Your task to perform on an android device: Open Google Chrome and open the bookmarks view Image 0: 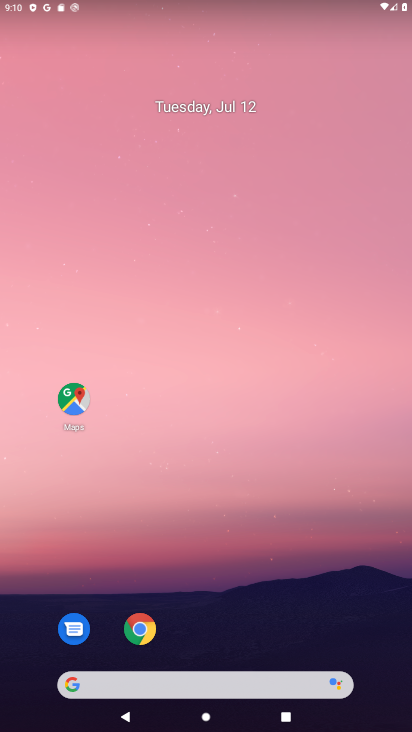
Step 0: drag from (304, 618) to (277, 215)
Your task to perform on an android device: Open Google Chrome and open the bookmarks view Image 1: 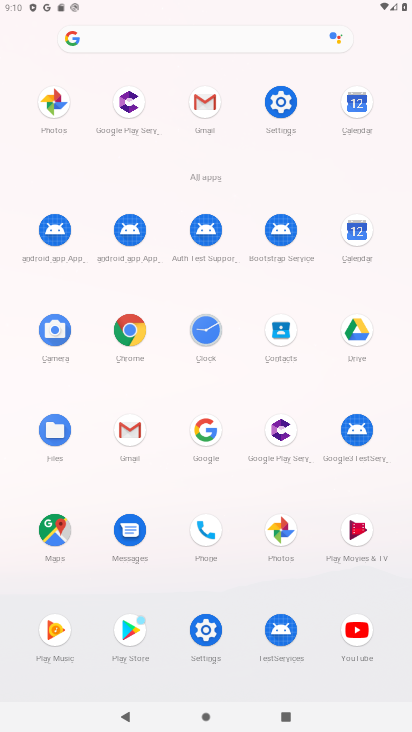
Step 1: click (134, 328)
Your task to perform on an android device: Open Google Chrome and open the bookmarks view Image 2: 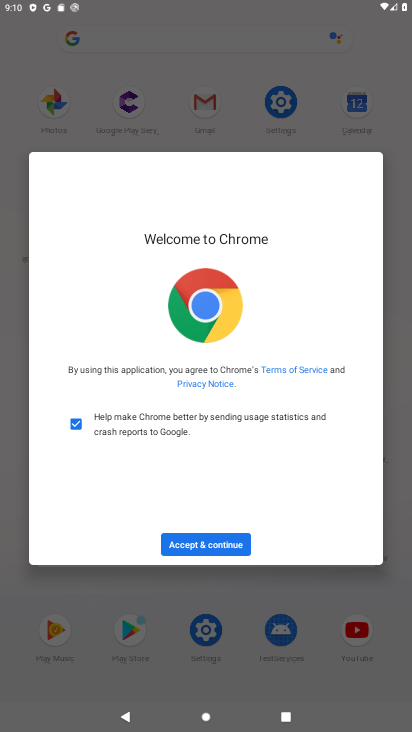
Step 2: click (204, 531)
Your task to perform on an android device: Open Google Chrome and open the bookmarks view Image 3: 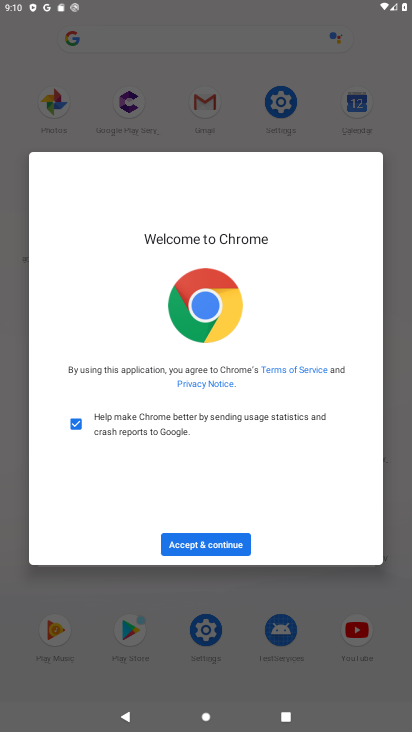
Step 3: click (204, 537)
Your task to perform on an android device: Open Google Chrome and open the bookmarks view Image 4: 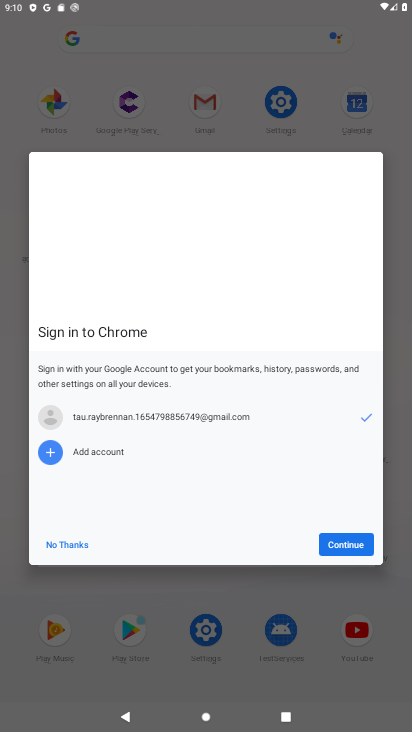
Step 4: click (362, 552)
Your task to perform on an android device: Open Google Chrome and open the bookmarks view Image 5: 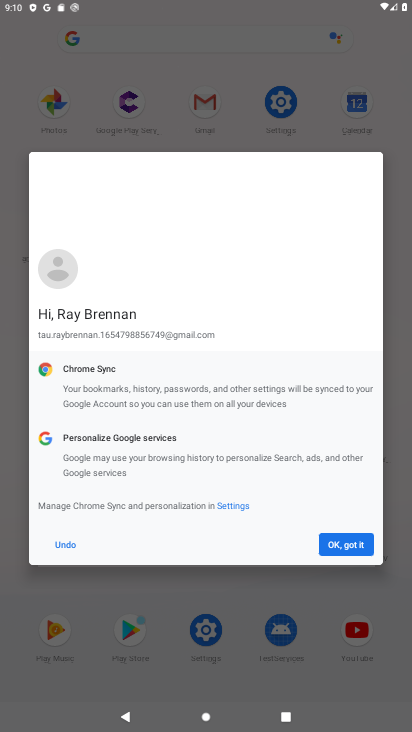
Step 5: click (362, 552)
Your task to perform on an android device: Open Google Chrome and open the bookmarks view Image 6: 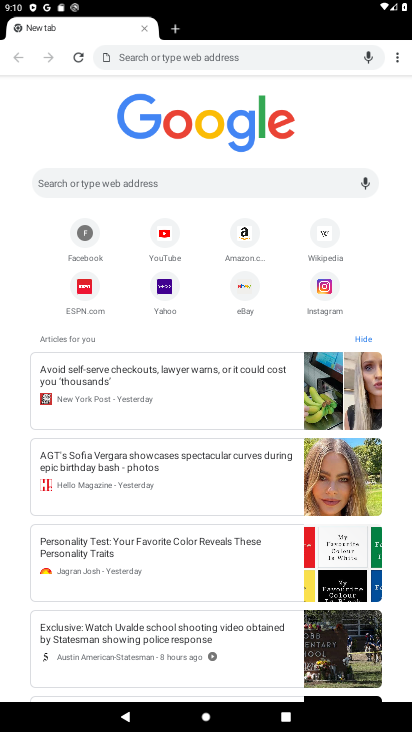
Step 6: click (397, 61)
Your task to perform on an android device: Open Google Chrome and open the bookmarks view Image 7: 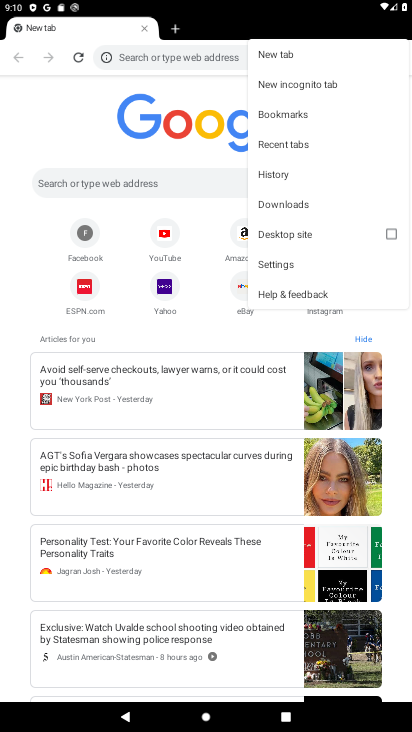
Step 7: click (337, 112)
Your task to perform on an android device: Open Google Chrome and open the bookmarks view Image 8: 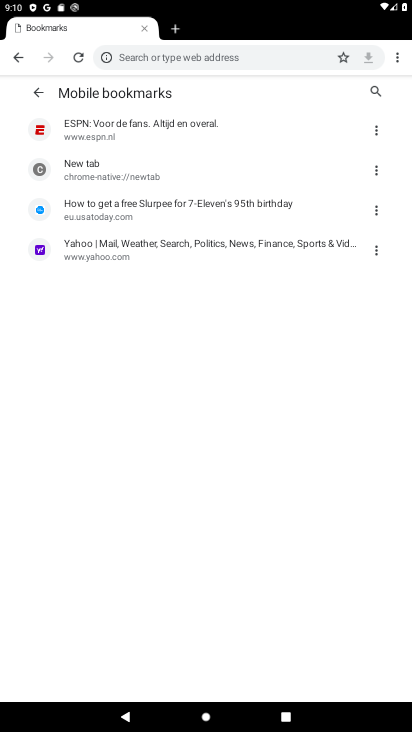
Step 8: task complete